Your task to perform on an android device: What's the weather today? Image 0: 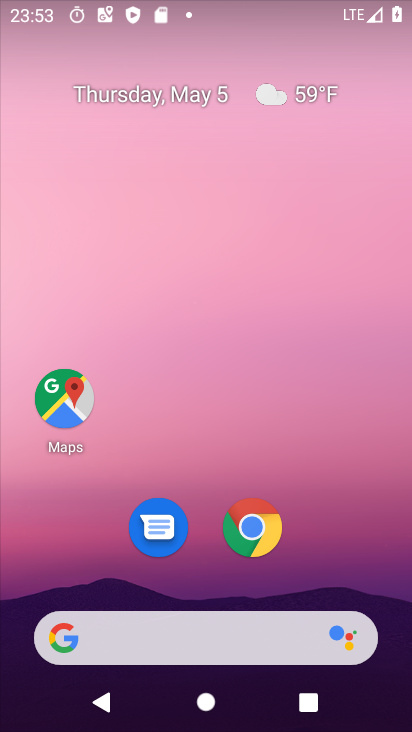
Step 0: drag from (203, 483) to (216, 88)
Your task to perform on an android device: What's the weather today? Image 1: 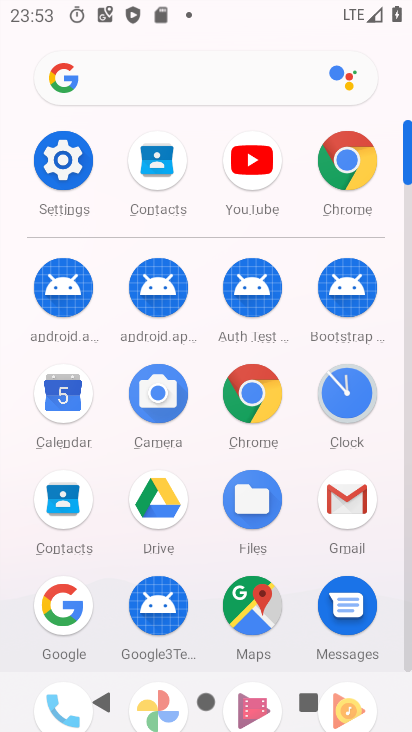
Step 1: click (197, 74)
Your task to perform on an android device: What's the weather today? Image 2: 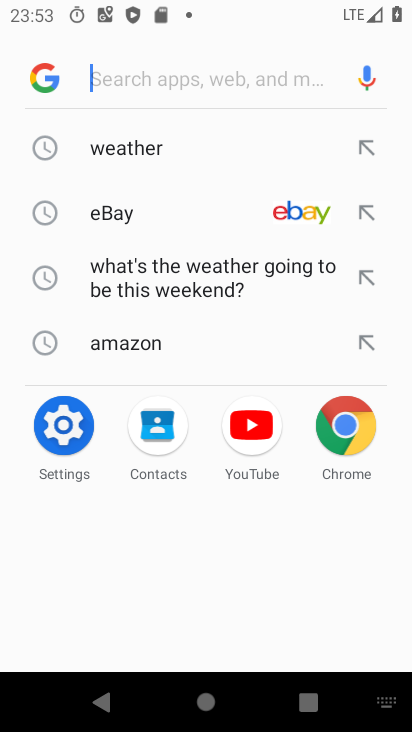
Step 2: click (159, 157)
Your task to perform on an android device: What's the weather today? Image 3: 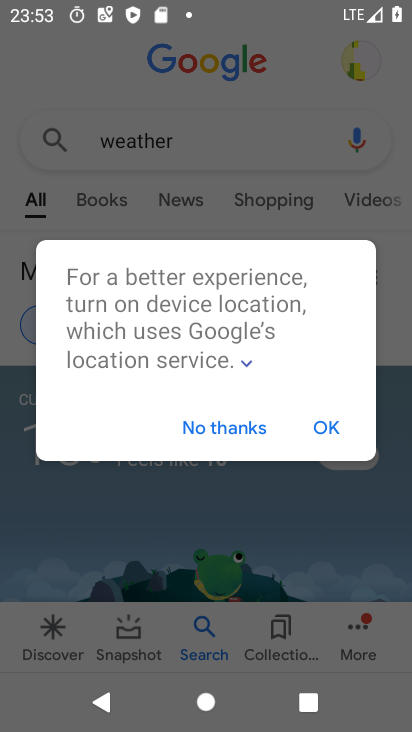
Step 3: drag from (112, 472) to (110, 334)
Your task to perform on an android device: What's the weather today? Image 4: 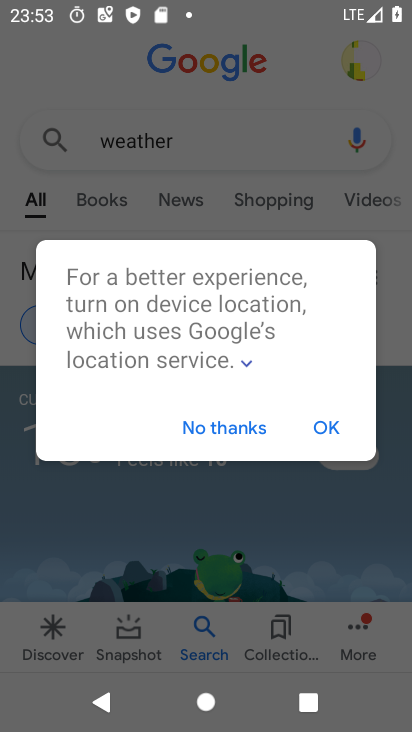
Step 4: click (225, 409)
Your task to perform on an android device: What's the weather today? Image 5: 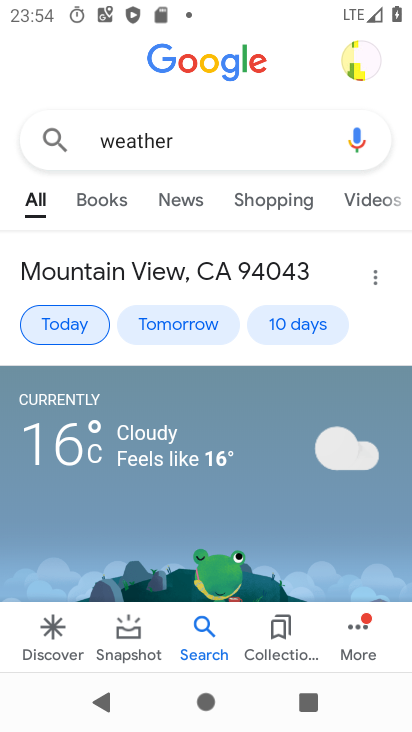
Step 5: task complete